Your task to perform on an android device: open sync settings in chrome Image 0: 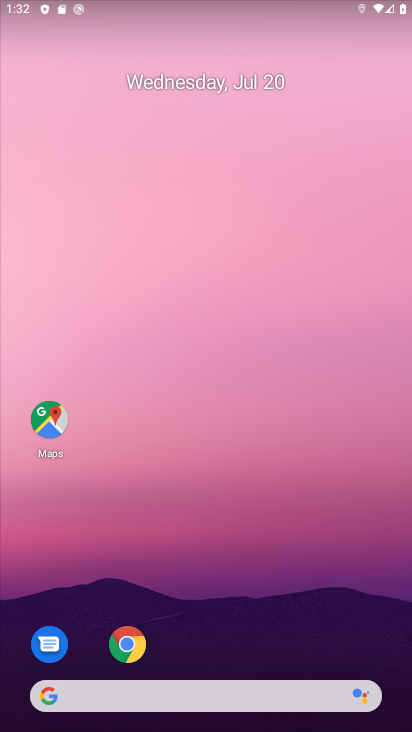
Step 0: click (130, 637)
Your task to perform on an android device: open sync settings in chrome Image 1: 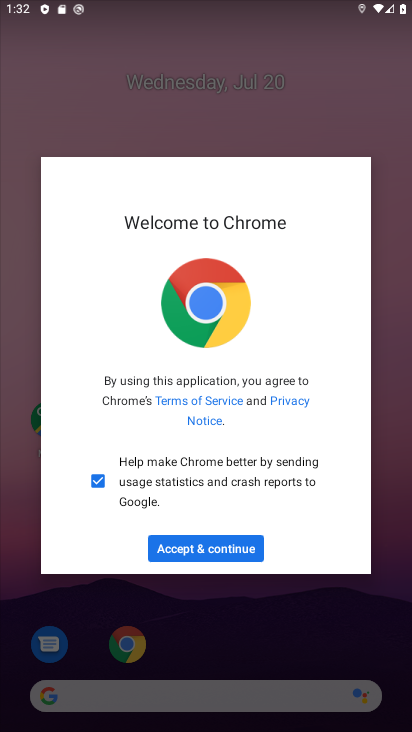
Step 1: click (214, 552)
Your task to perform on an android device: open sync settings in chrome Image 2: 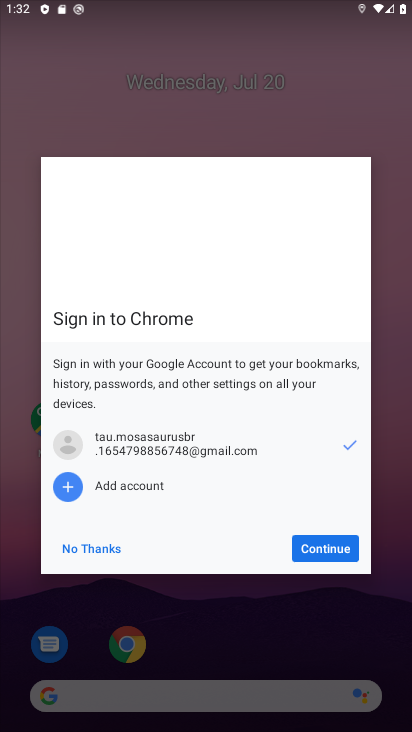
Step 2: click (301, 545)
Your task to perform on an android device: open sync settings in chrome Image 3: 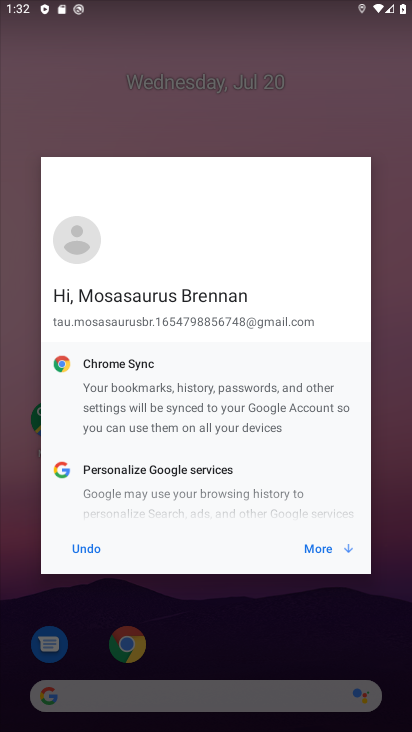
Step 3: click (321, 544)
Your task to perform on an android device: open sync settings in chrome Image 4: 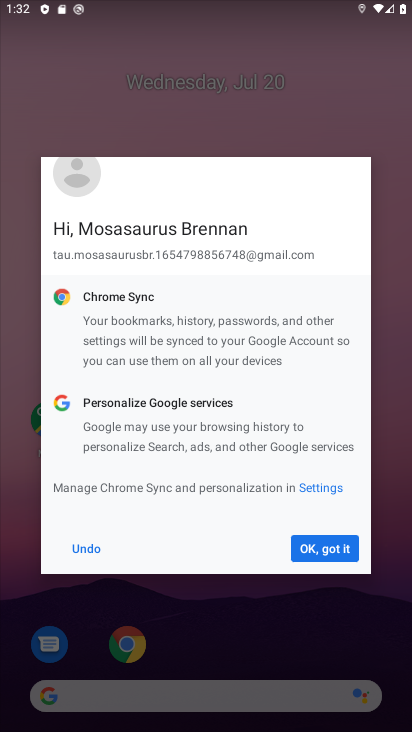
Step 4: click (321, 544)
Your task to perform on an android device: open sync settings in chrome Image 5: 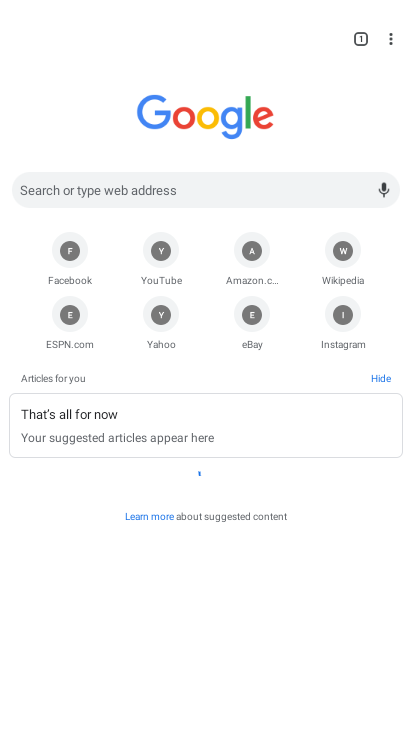
Step 5: click (387, 39)
Your task to perform on an android device: open sync settings in chrome Image 6: 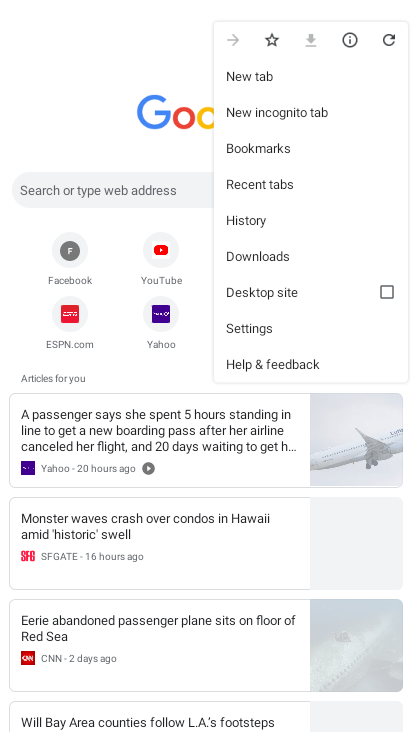
Step 6: click (262, 328)
Your task to perform on an android device: open sync settings in chrome Image 7: 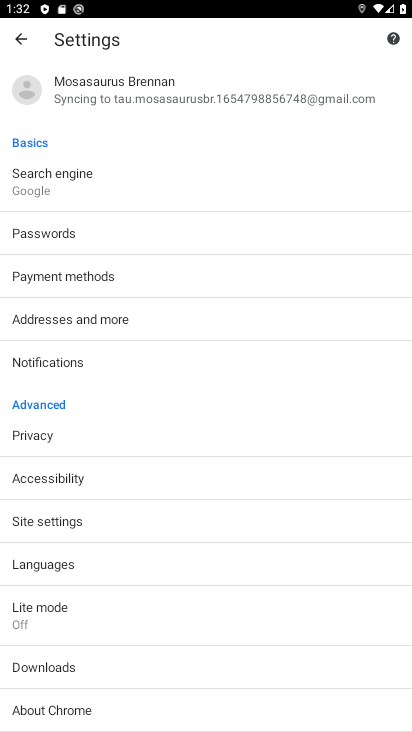
Step 7: click (220, 101)
Your task to perform on an android device: open sync settings in chrome Image 8: 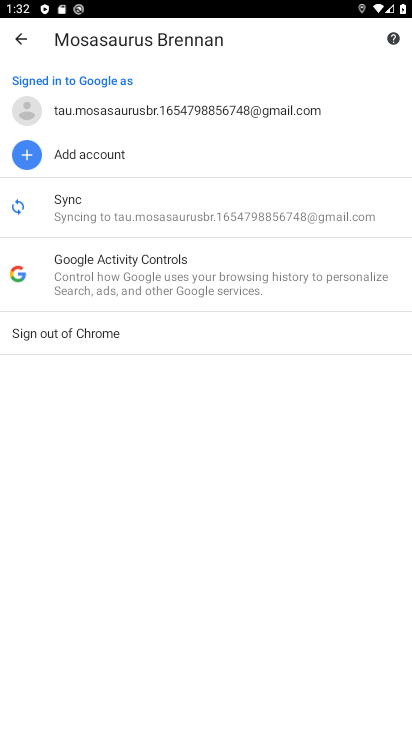
Step 8: click (108, 217)
Your task to perform on an android device: open sync settings in chrome Image 9: 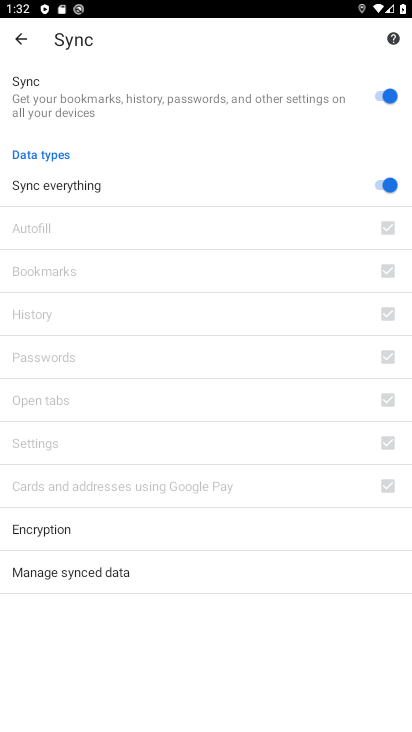
Step 9: task complete